Your task to perform on an android device: Check the news Image 0: 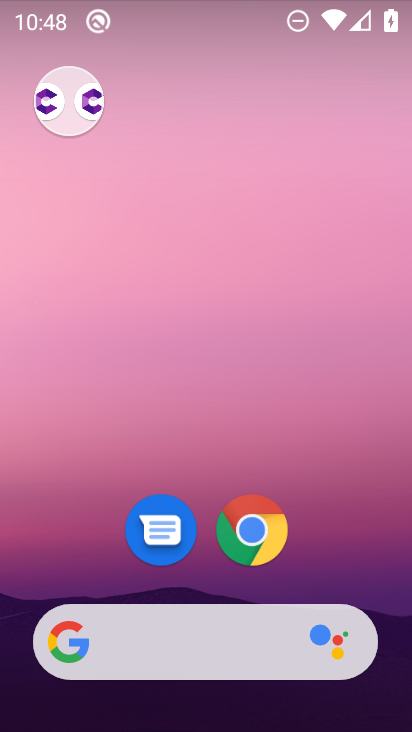
Step 0: drag from (348, 523) to (173, 143)
Your task to perform on an android device: Check the news Image 1: 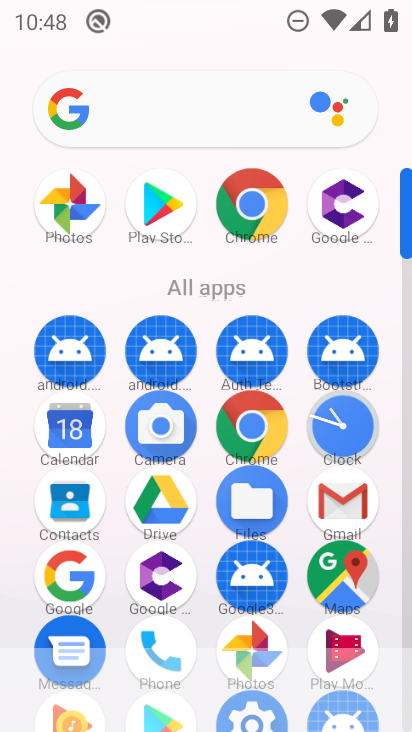
Step 1: press back button
Your task to perform on an android device: Check the news Image 2: 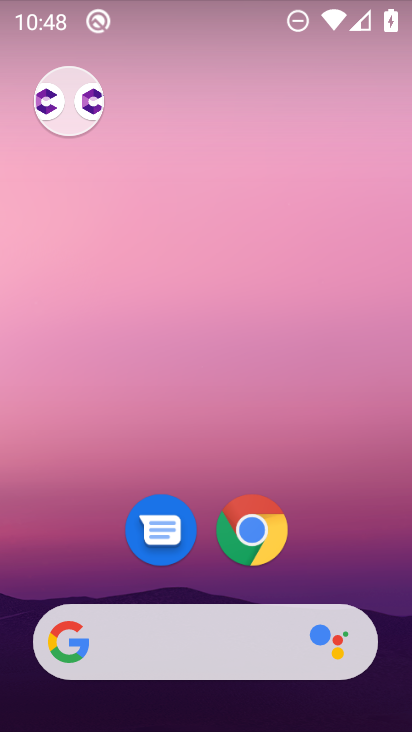
Step 2: drag from (10, 207) to (378, 362)
Your task to perform on an android device: Check the news Image 3: 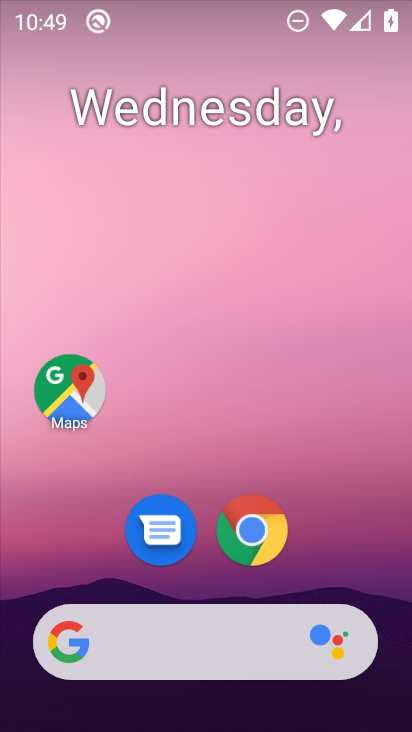
Step 3: drag from (210, 499) to (122, 38)
Your task to perform on an android device: Check the news Image 4: 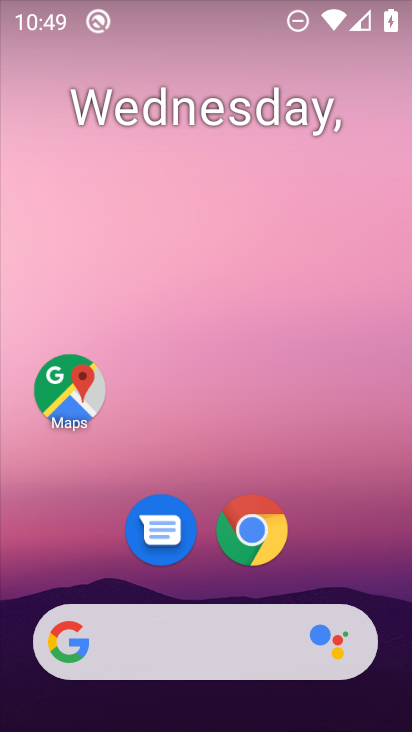
Step 4: drag from (208, 428) to (133, 168)
Your task to perform on an android device: Check the news Image 5: 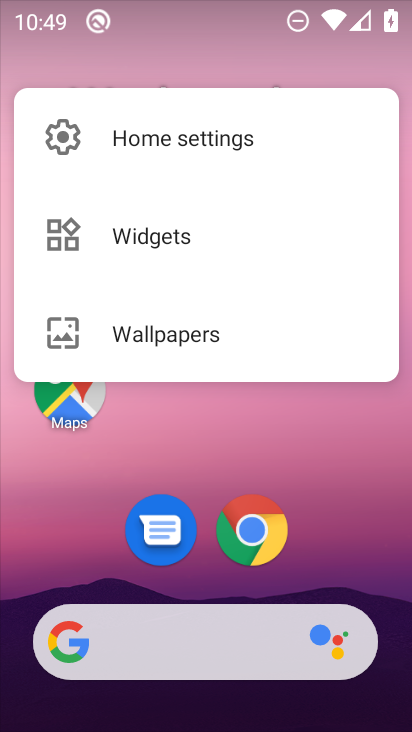
Step 5: click (335, 402)
Your task to perform on an android device: Check the news Image 6: 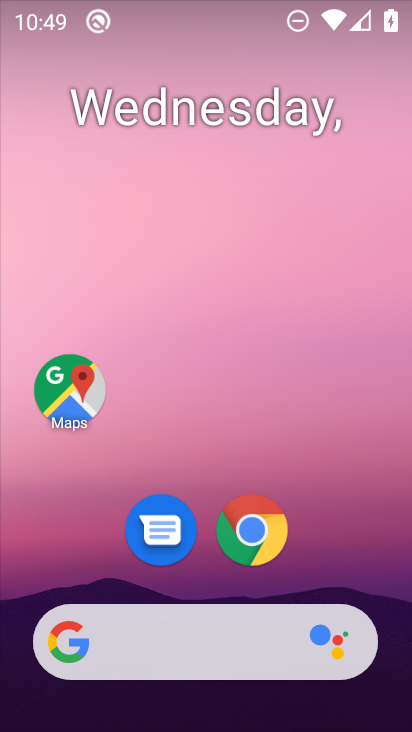
Step 6: drag from (57, 237) to (358, 349)
Your task to perform on an android device: Check the news Image 7: 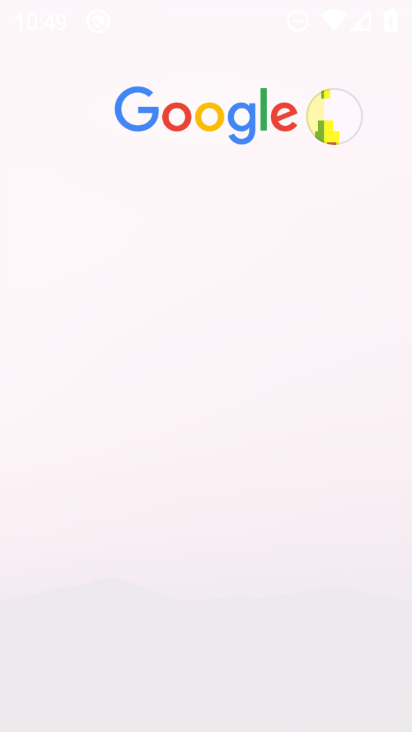
Step 7: click (369, 305)
Your task to perform on an android device: Check the news Image 8: 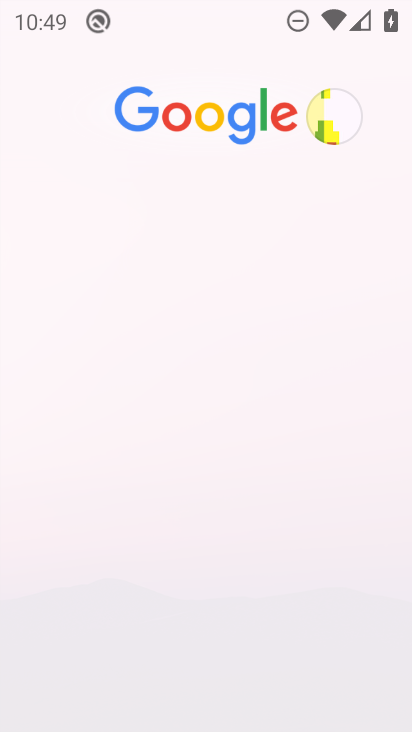
Step 8: drag from (140, 253) to (386, 340)
Your task to perform on an android device: Check the news Image 9: 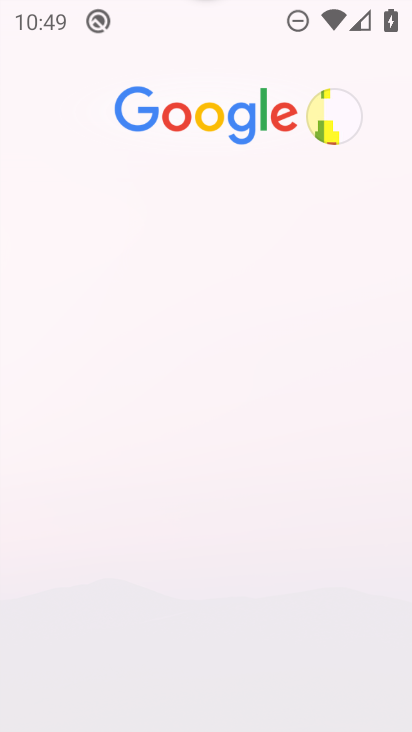
Step 9: drag from (3, 208) to (380, 363)
Your task to perform on an android device: Check the news Image 10: 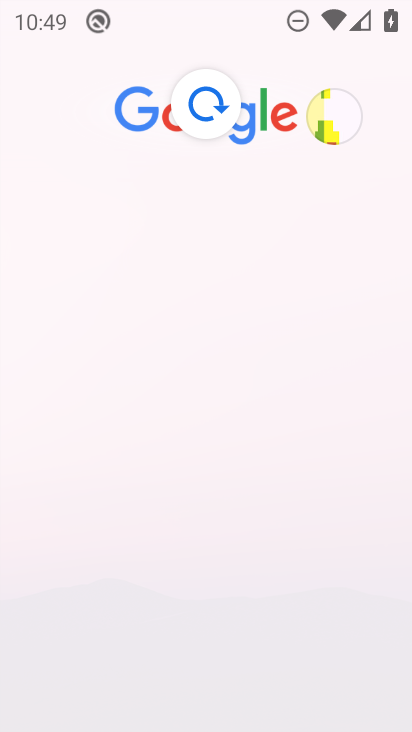
Step 10: drag from (15, 200) to (369, 376)
Your task to perform on an android device: Check the news Image 11: 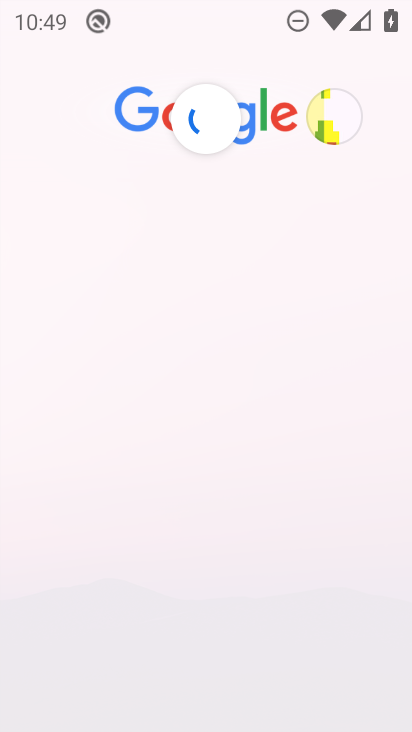
Step 11: drag from (391, 308) to (284, 311)
Your task to perform on an android device: Check the news Image 12: 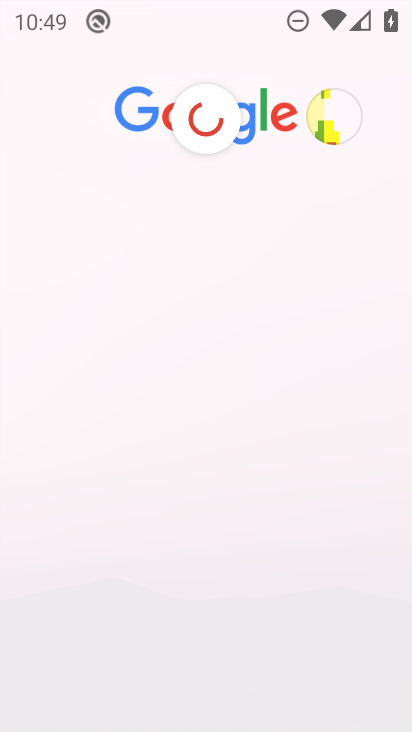
Step 12: drag from (29, 241) to (399, 410)
Your task to perform on an android device: Check the news Image 13: 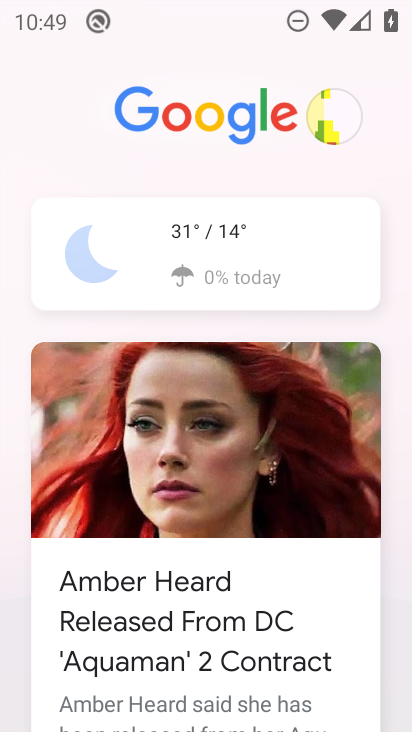
Step 13: drag from (375, 304) to (35, 183)
Your task to perform on an android device: Check the news Image 14: 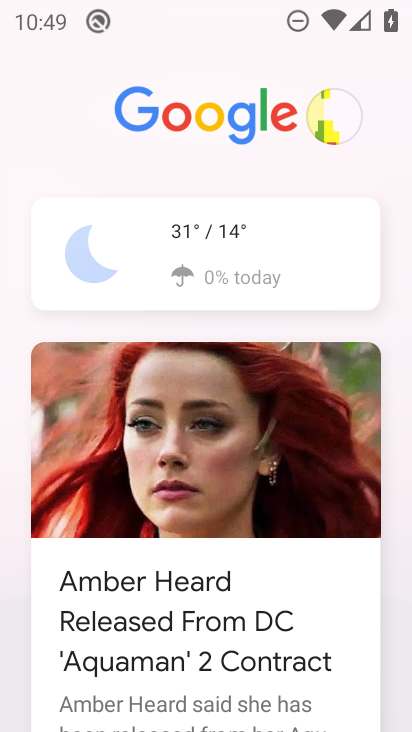
Step 14: click (347, 319)
Your task to perform on an android device: Check the news Image 15: 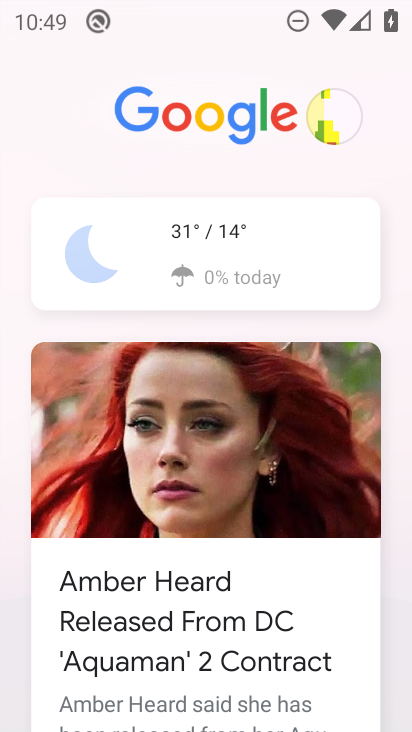
Step 15: click (323, 299)
Your task to perform on an android device: Check the news Image 16: 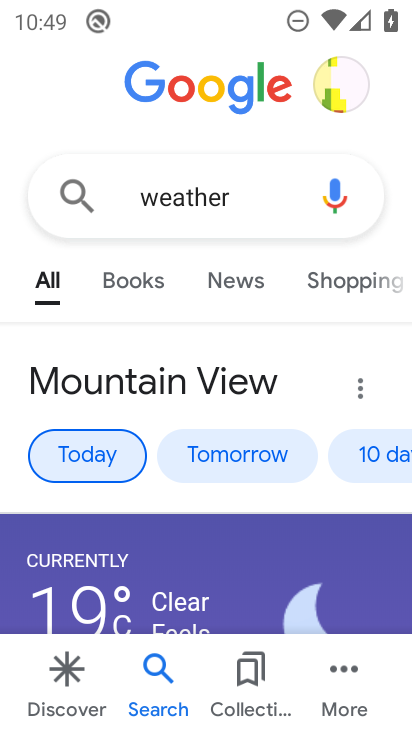
Step 16: click (376, 279)
Your task to perform on an android device: Check the news Image 17: 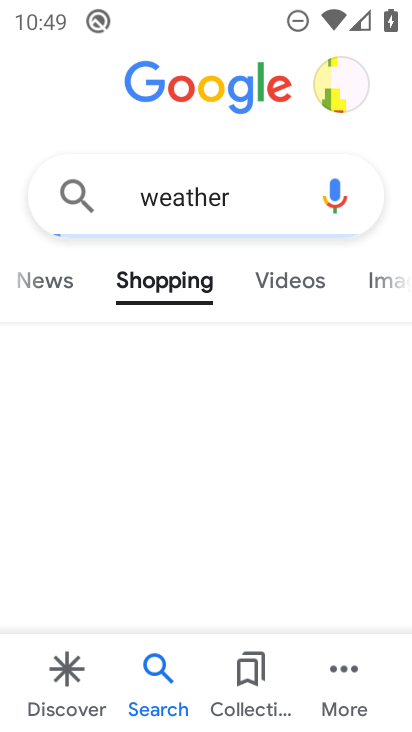
Step 17: drag from (67, 178) to (218, 258)
Your task to perform on an android device: Check the news Image 18: 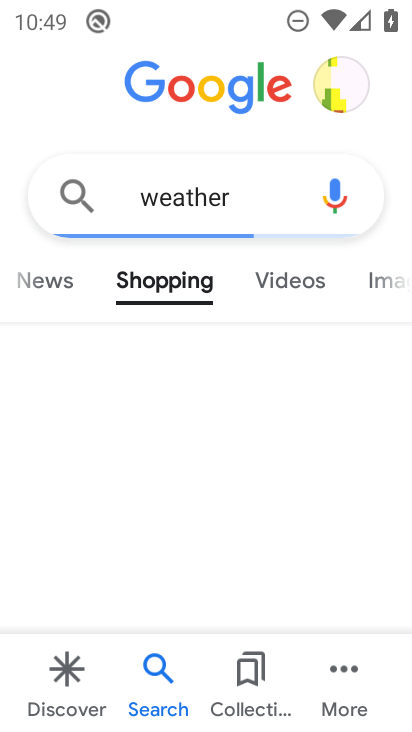
Step 18: drag from (329, 279) to (398, 321)
Your task to perform on an android device: Check the news Image 19: 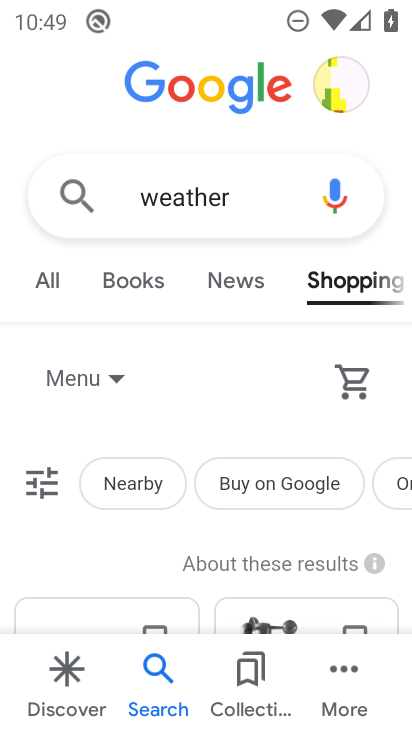
Step 19: click (328, 569)
Your task to perform on an android device: Check the news Image 20: 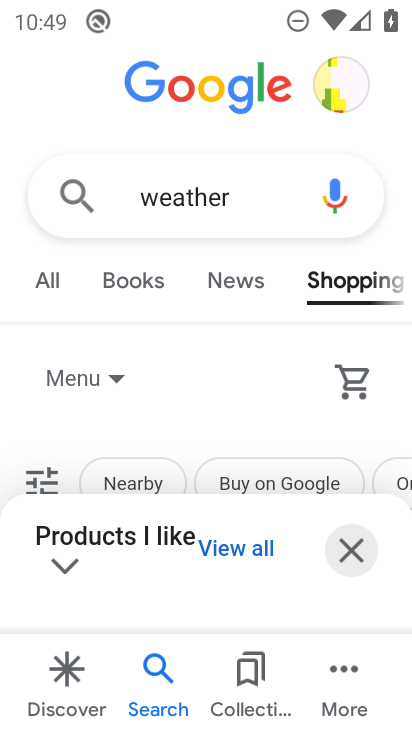
Step 20: click (305, 448)
Your task to perform on an android device: Check the news Image 21: 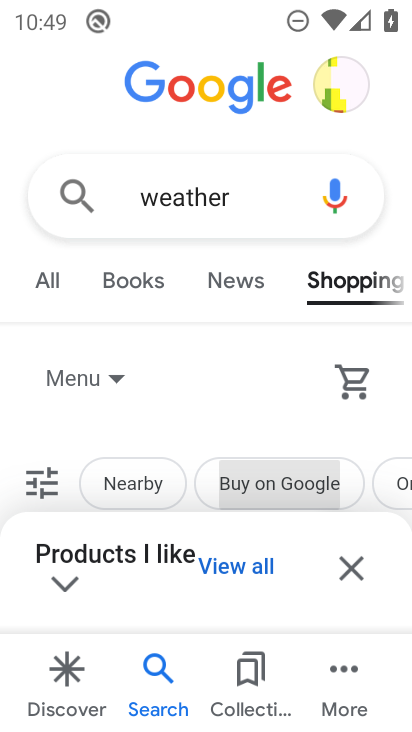
Step 21: click (304, 444)
Your task to perform on an android device: Check the news Image 22: 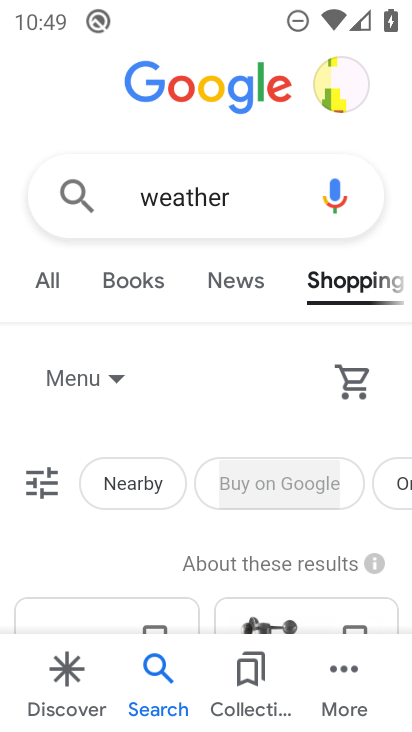
Step 22: click (157, 31)
Your task to perform on an android device: Check the news Image 23: 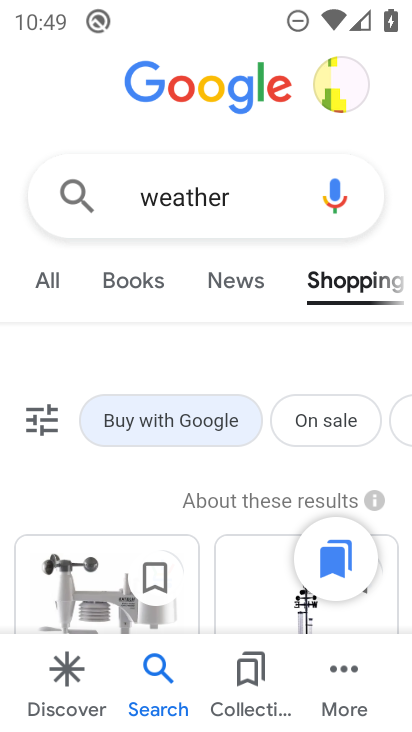
Step 23: task complete